Your task to perform on an android device: uninstall "Google Translate" Image 0: 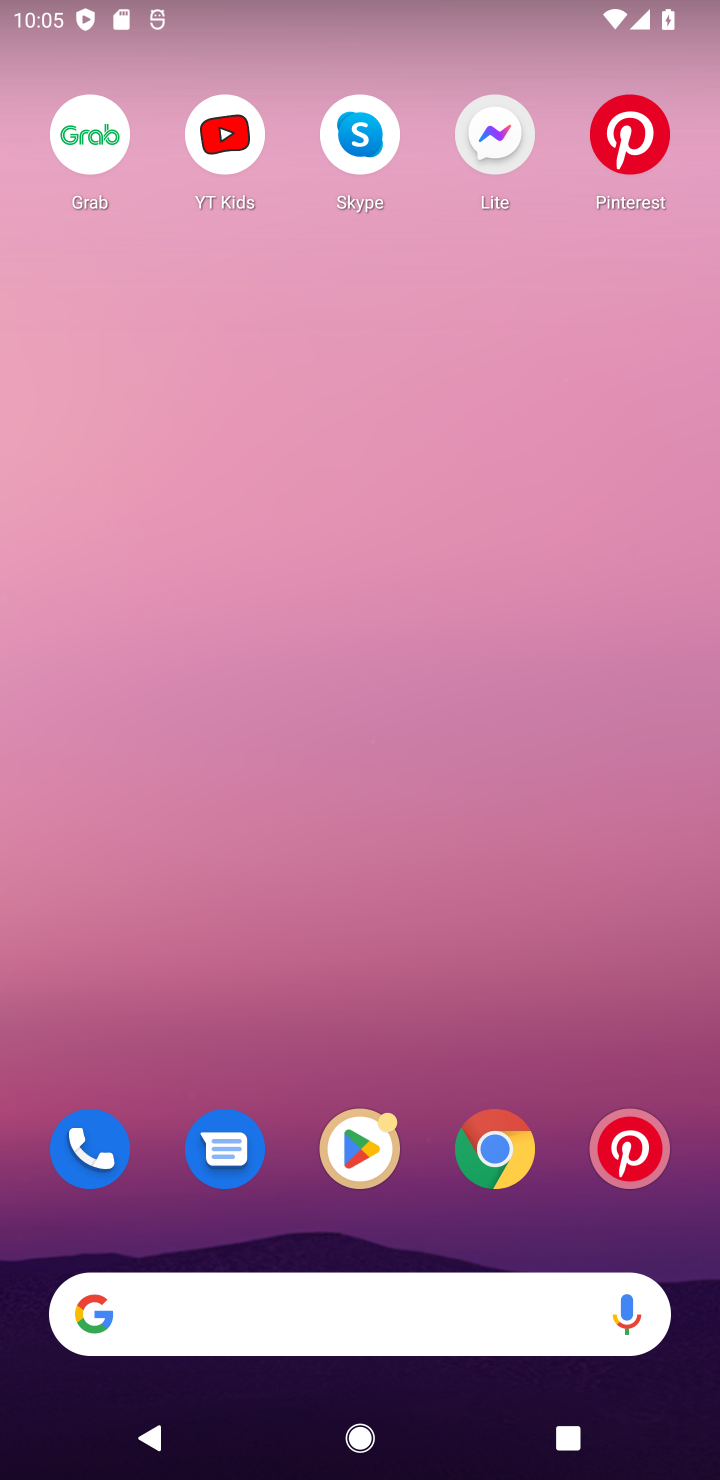
Step 0: click (352, 1171)
Your task to perform on an android device: uninstall "Google Translate" Image 1: 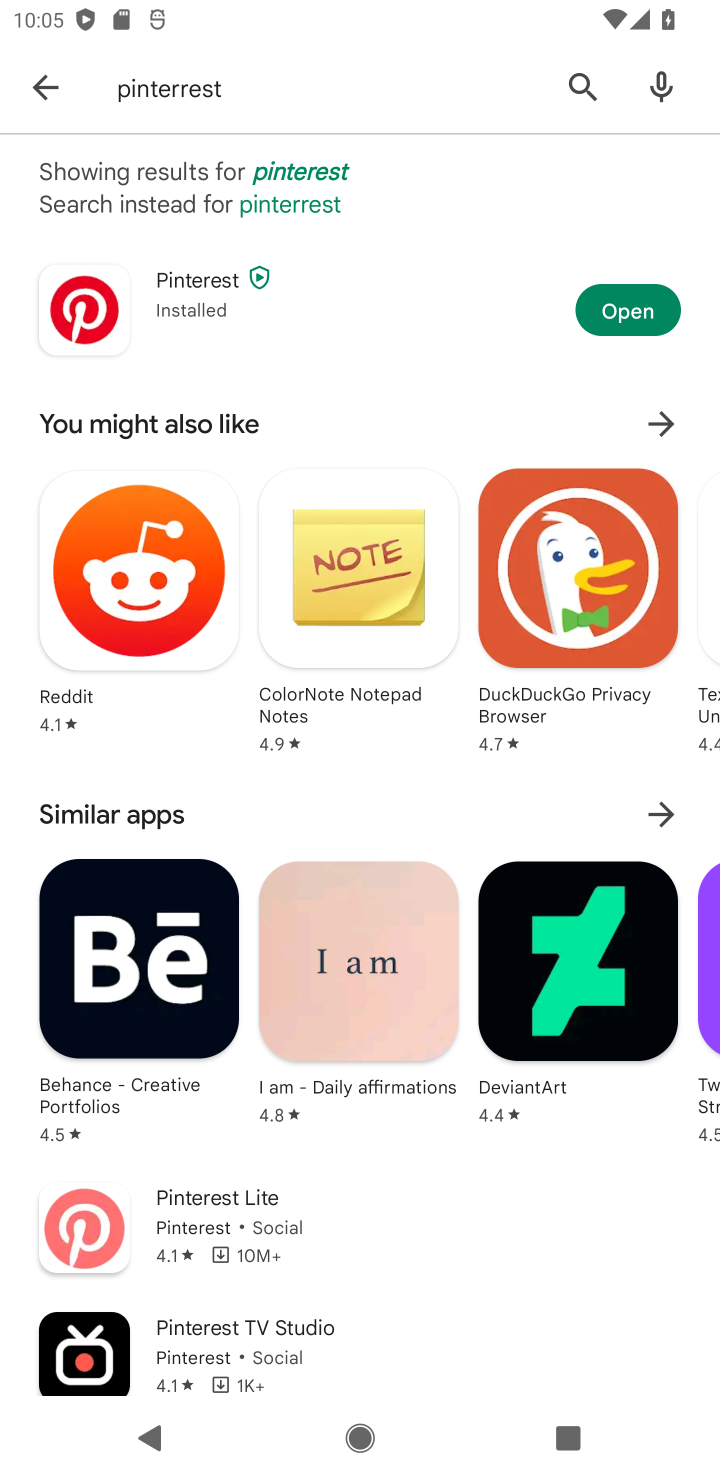
Step 1: click (594, 77)
Your task to perform on an android device: uninstall "Google Translate" Image 2: 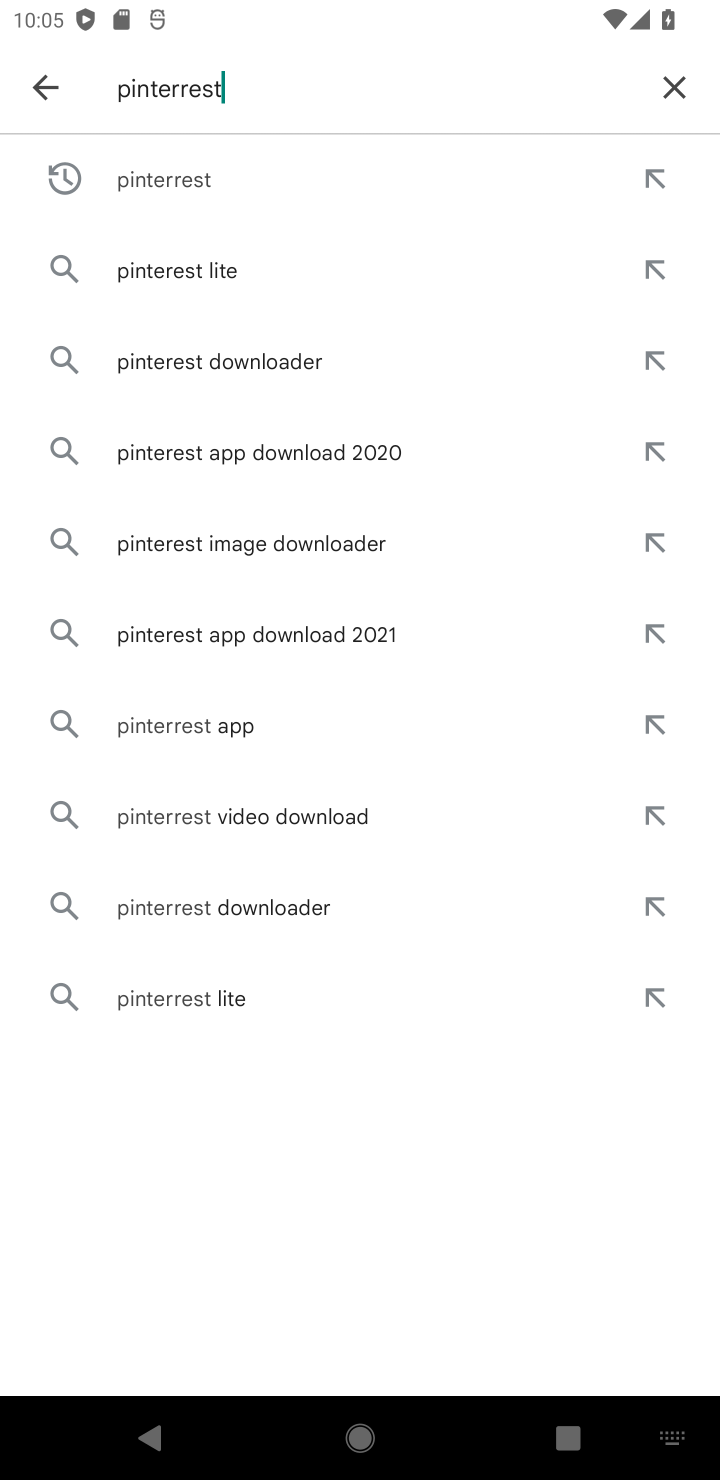
Step 2: click (647, 81)
Your task to perform on an android device: uninstall "Google Translate" Image 3: 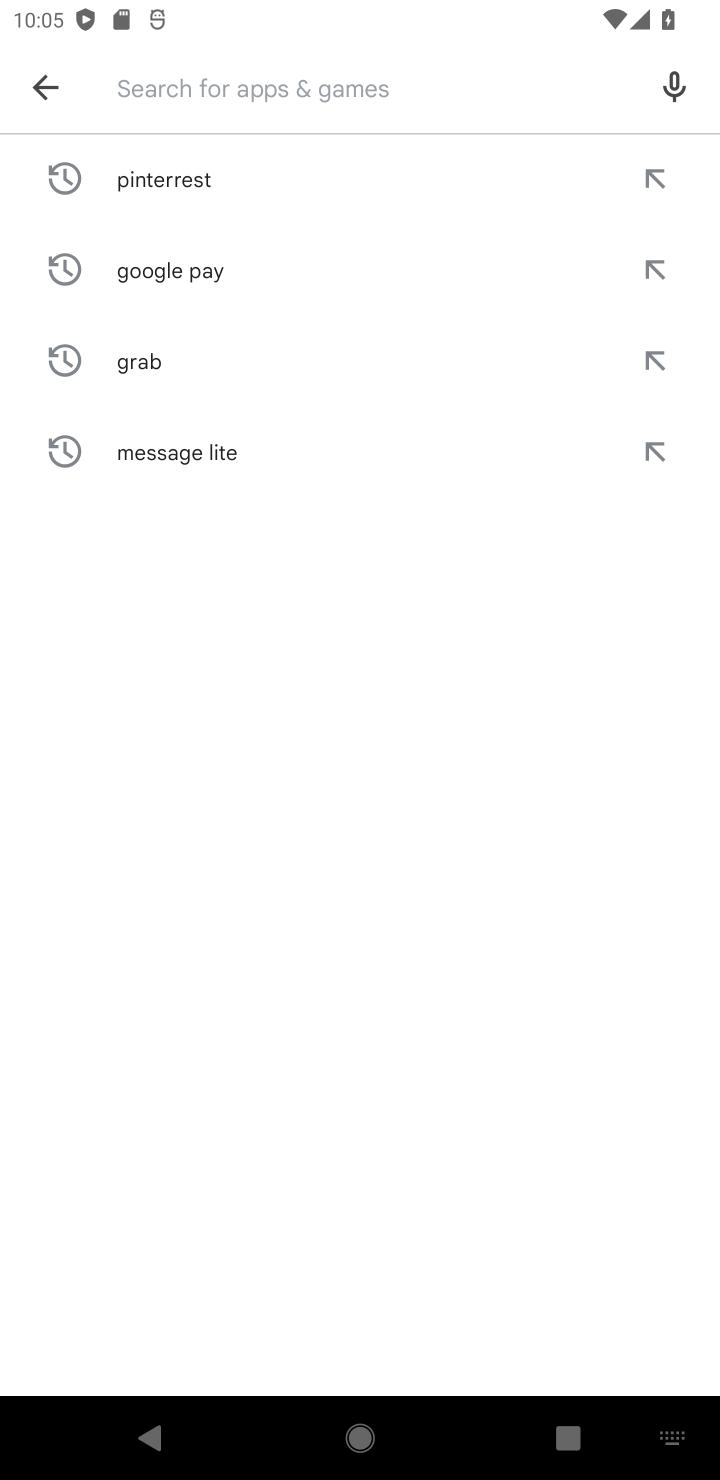
Step 3: type "google translayte"
Your task to perform on an android device: uninstall "Google Translate" Image 4: 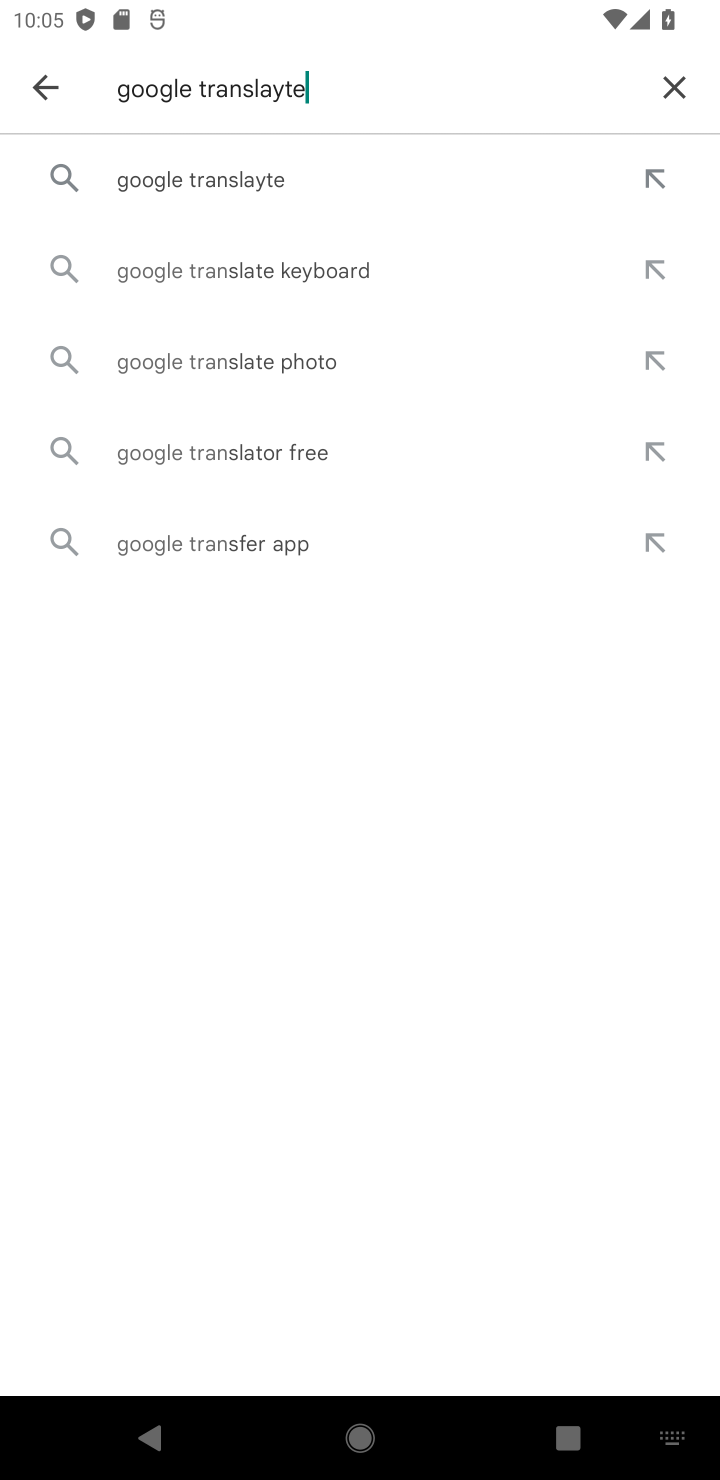
Step 4: click (245, 164)
Your task to perform on an android device: uninstall "Google Translate" Image 5: 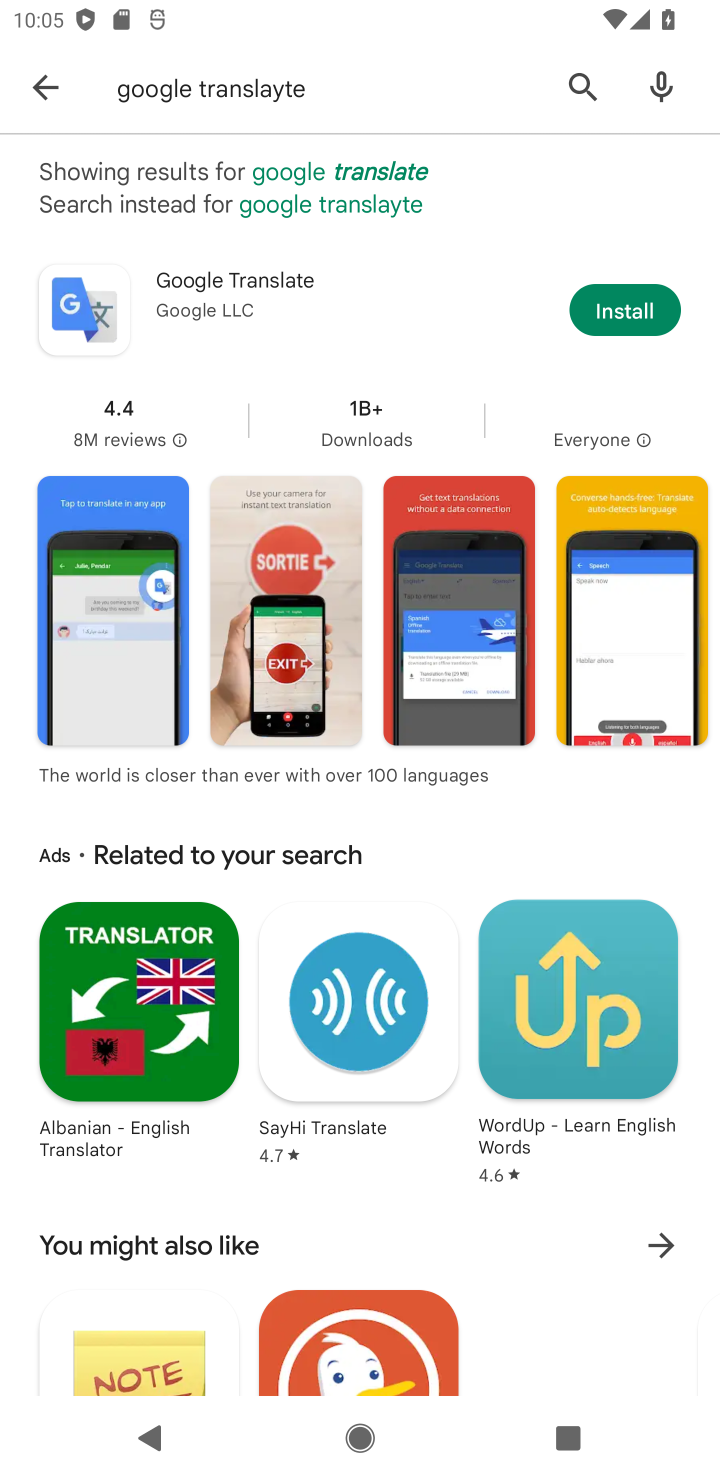
Step 5: click (650, 317)
Your task to perform on an android device: uninstall "Google Translate" Image 6: 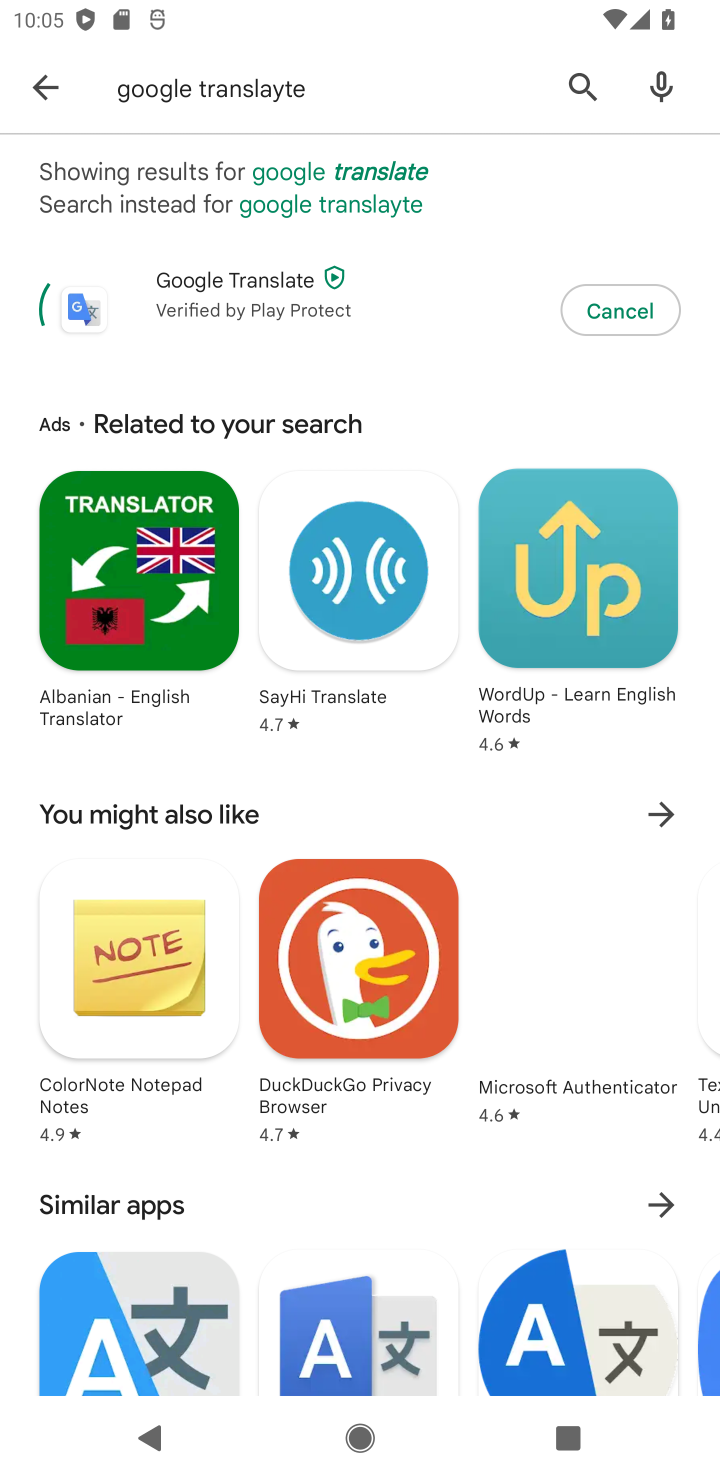
Step 6: task complete